Your task to perform on an android device: toggle location history Image 0: 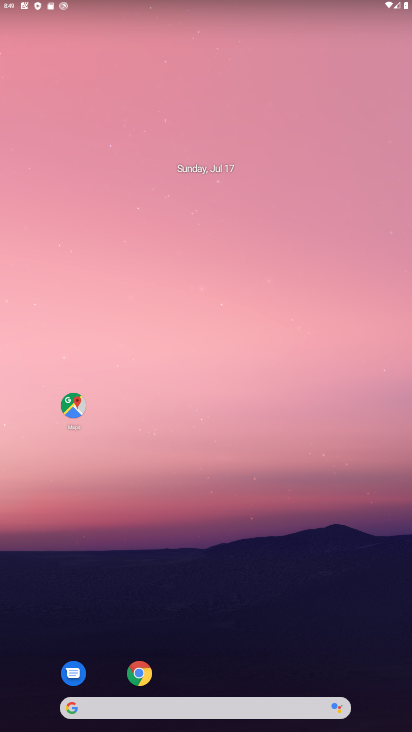
Step 0: drag from (279, 601) to (242, 108)
Your task to perform on an android device: toggle location history Image 1: 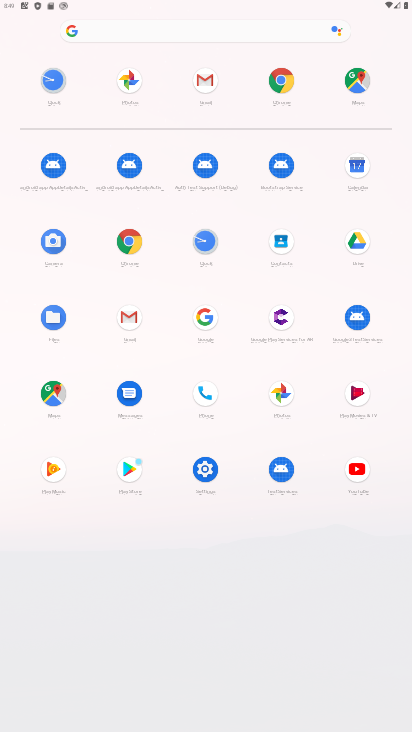
Step 1: click (203, 465)
Your task to perform on an android device: toggle location history Image 2: 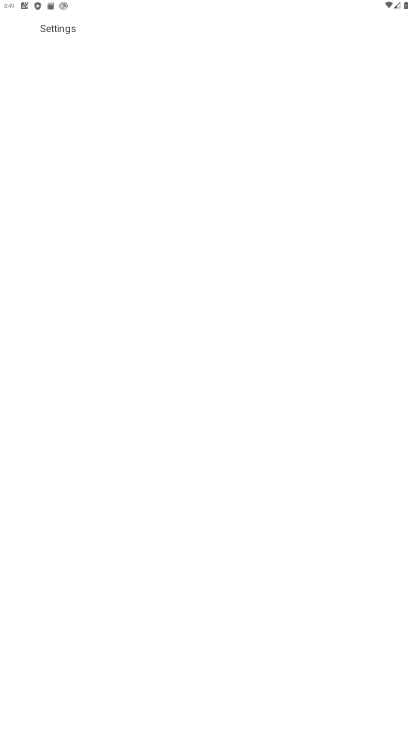
Step 2: click (203, 473)
Your task to perform on an android device: toggle location history Image 3: 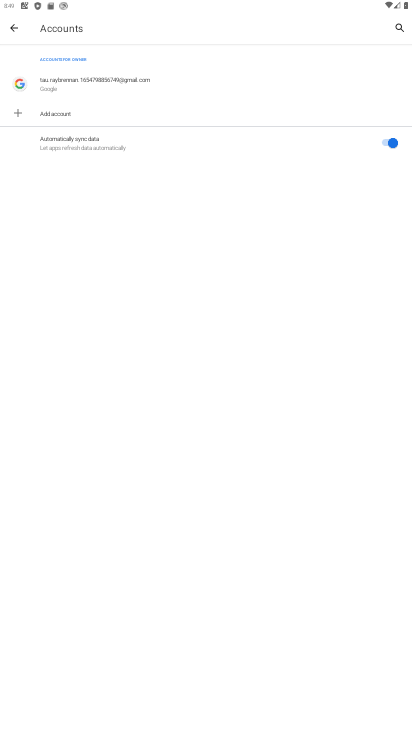
Step 3: click (16, 23)
Your task to perform on an android device: toggle location history Image 4: 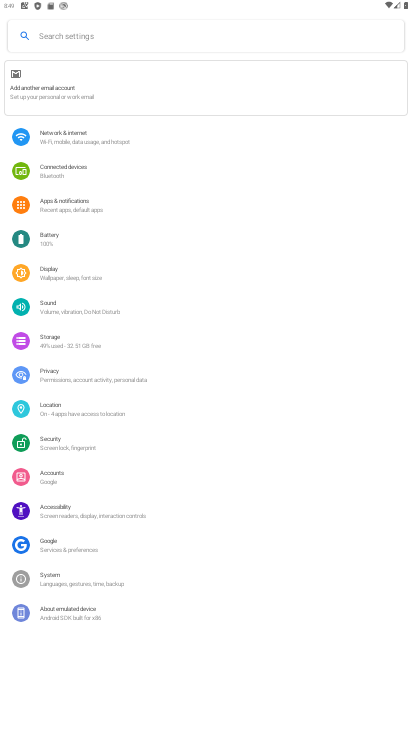
Step 4: click (63, 417)
Your task to perform on an android device: toggle location history Image 5: 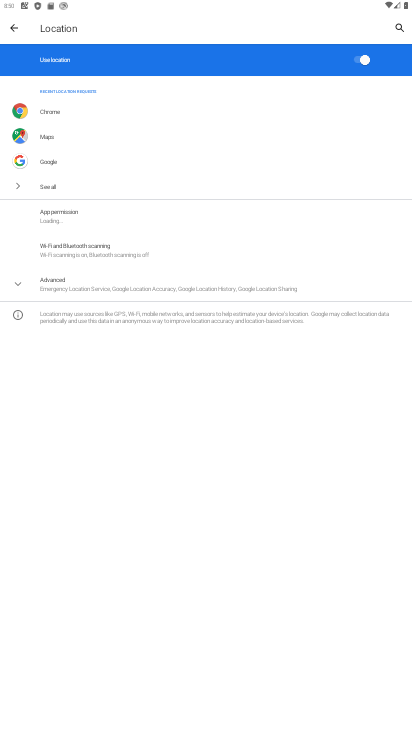
Step 5: click (90, 278)
Your task to perform on an android device: toggle location history Image 6: 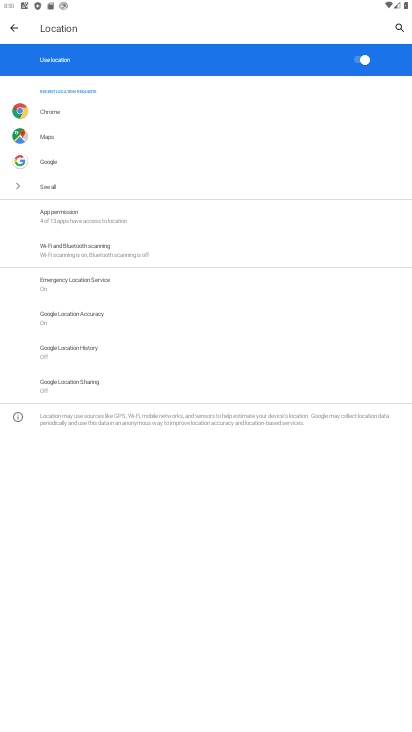
Step 6: click (76, 349)
Your task to perform on an android device: toggle location history Image 7: 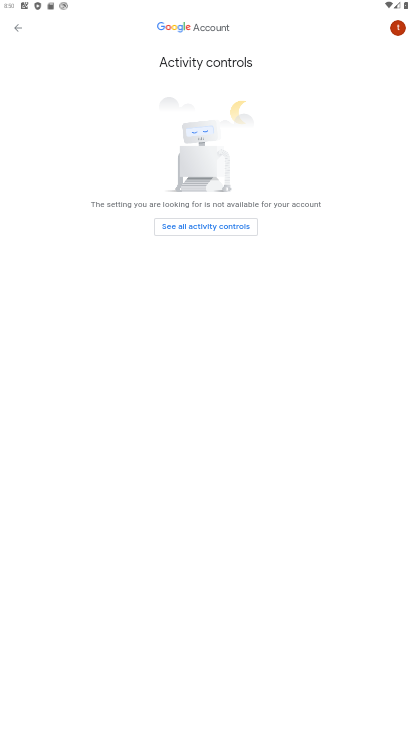
Step 7: task complete